Your task to perform on an android device: check google app version Image 0: 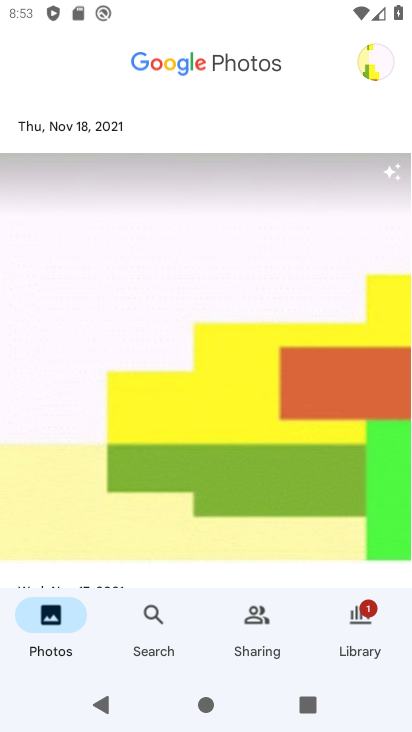
Step 0: press home button
Your task to perform on an android device: check google app version Image 1: 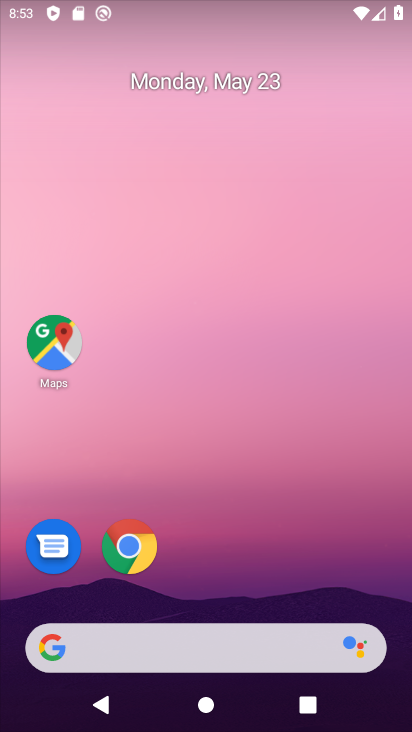
Step 1: drag from (273, 521) to (259, 119)
Your task to perform on an android device: check google app version Image 2: 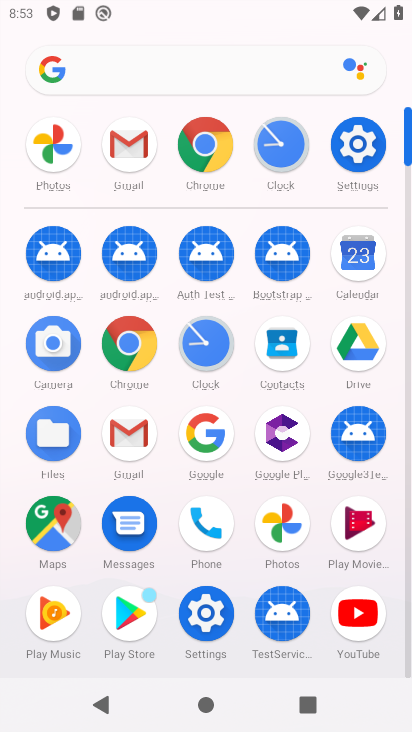
Step 2: click (207, 441)
Your task to perform on an android device: check google app version Image 3: 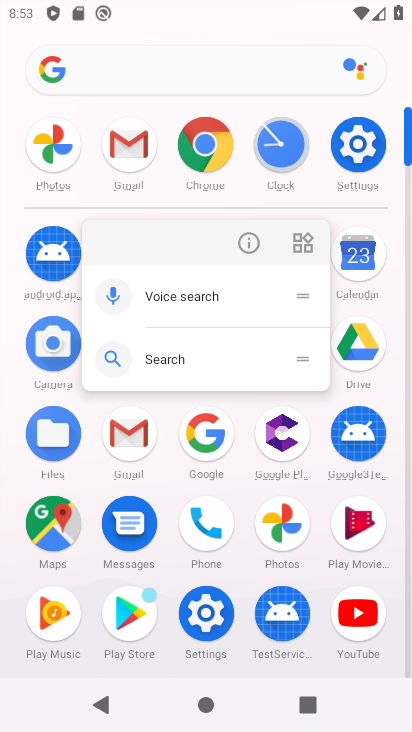
Step 3: click (252, 250)
Your task to perform on an android device: check google app version Image 4: 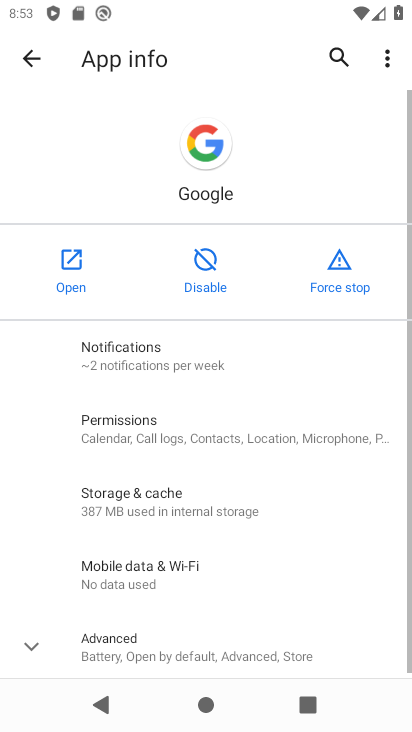
Step 4: drag from (248, 611) to (237, 225)
Your task to perform on an android device: check google app version Image 5: 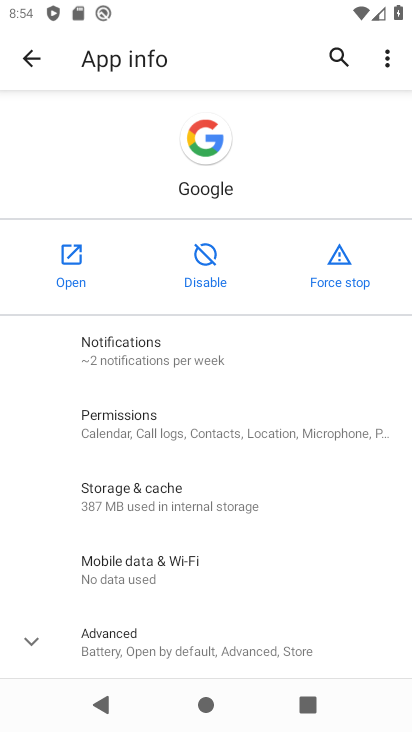
Step 5: click (129, 657)
Your task to perform on an android device: check google app version Image 6: 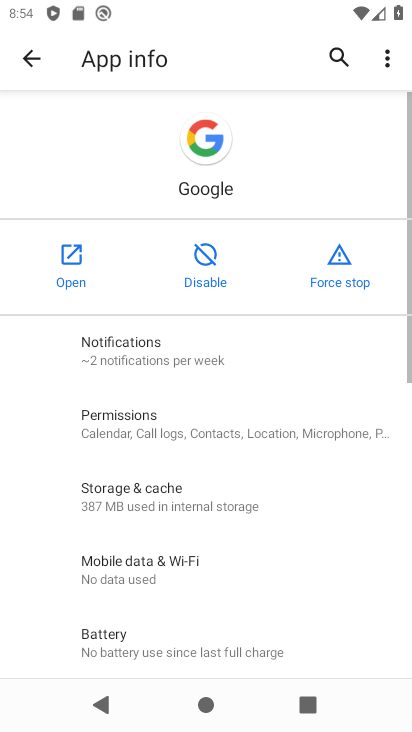
Step 6: task complete